Your task to perform on an android device: toggle notifications settings in the gmail app Image 0: 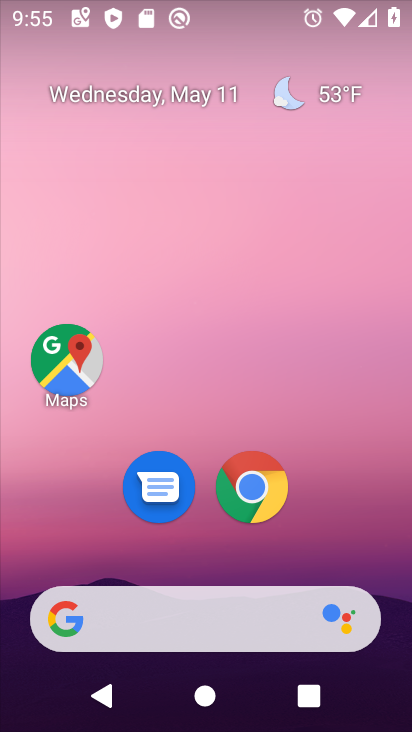
Step 0: drag from (183, 555) to (180, 194)
Your task to perform on an android device: toggle notifications settings in the gmail app Image 1: 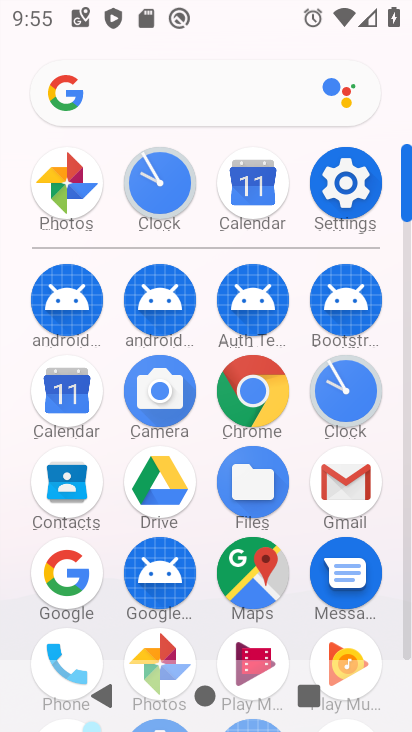
Step 1: click (322, 475)
Your task to perform on an android device: toggle notifications settings in the gmail app Image 2: 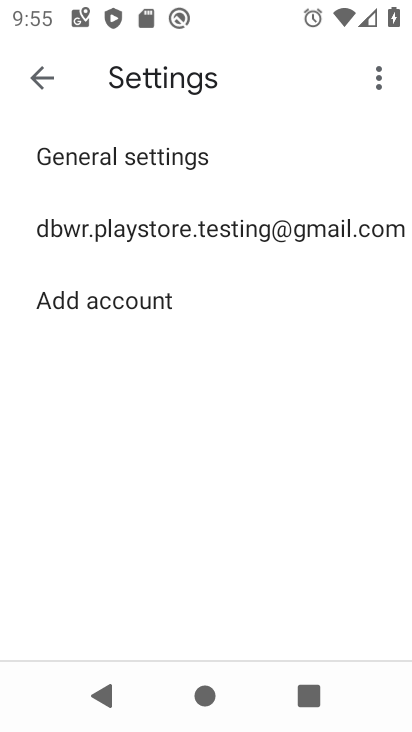
Step 2: click (159, 234)
Your task to perform on an android device: toggle notifications settings in the gmail app Image 3: 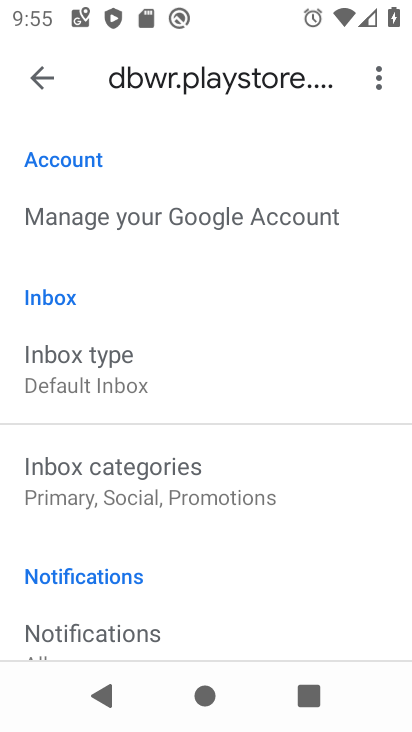
Step 3: drag from (156, 597) to (156, 307)
Your task to perform on an android device: toggle notifications settings in the gmail app Image 4: 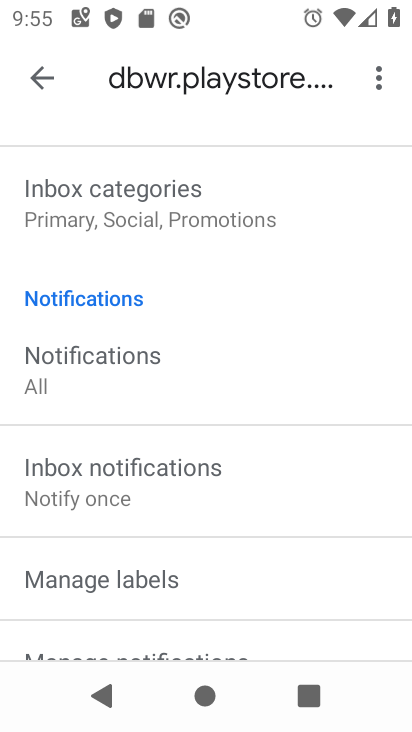
Step 4: drag from (131, 635) to (128, 447)
Your task to perform on an android device: toggle notifications settings in the gmail app Image 5: 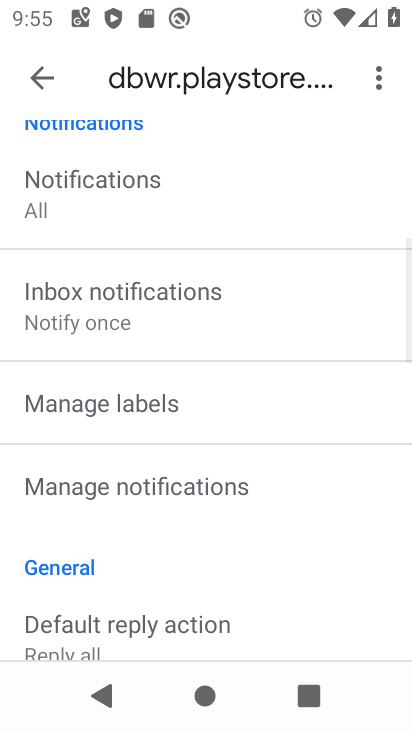
Step 5: click (126, 490)
Your task to perform on an android device: toggle notifications settings in the gmail app Image 6: 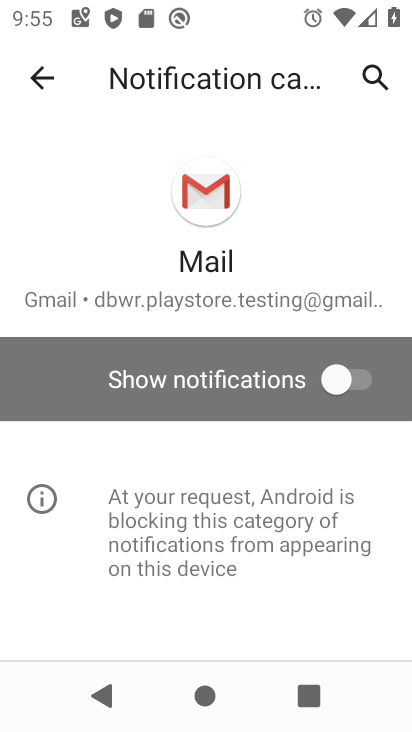
Step 6: click (356, 373)
Your task to perform on an android device: toggle notifications settings in the gmail app Image 7: 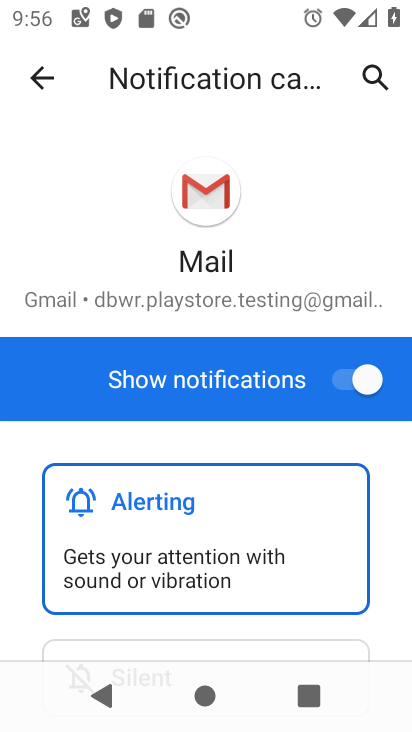
Step 7: task complete